Your task to perform on an android device: Do I have any events this weekend? Image 0: 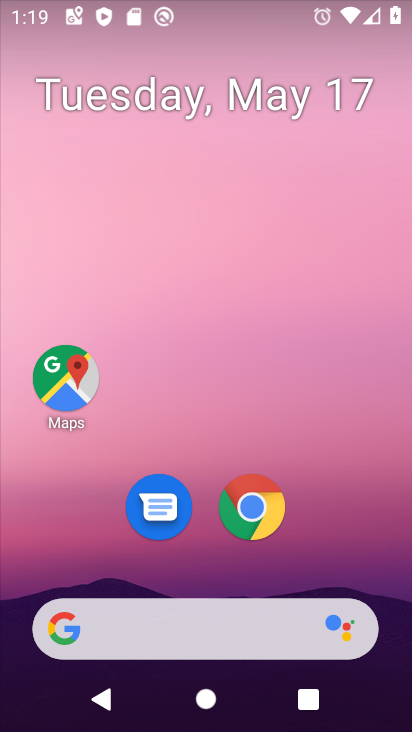
Step 0: drag from (301, 508) to (340, 203)
Your task to perform on an android device: Do I have any events this weekend? Image 1: 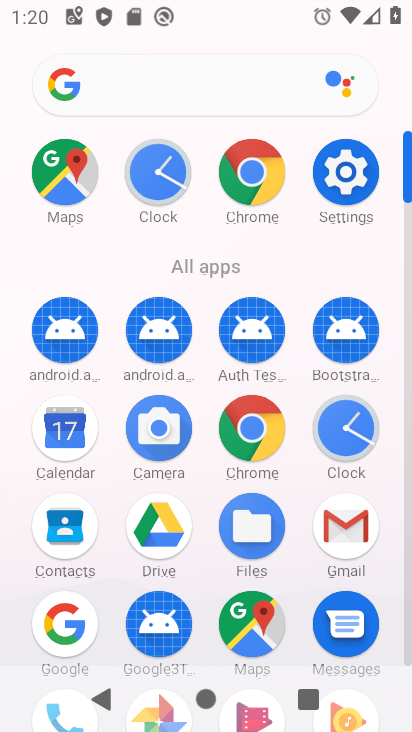
Step 1: click (62, 423)
Your task to perform on an android device: Do I have any events this weekend? Image 2: 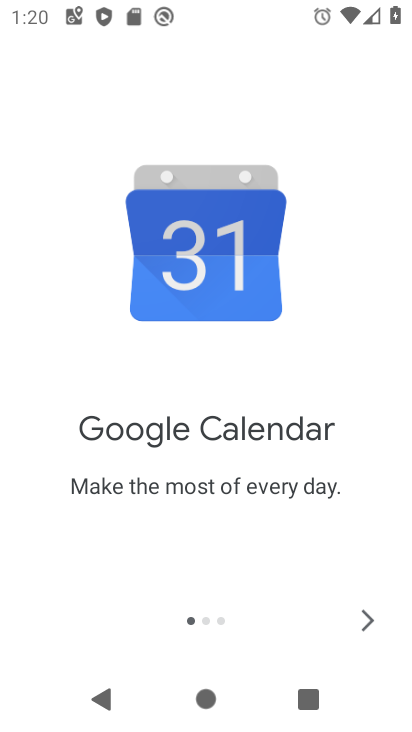
Step 2: click (343, 621)
Your task to perform on an android device: Do I have any events this weekend? Image 3: 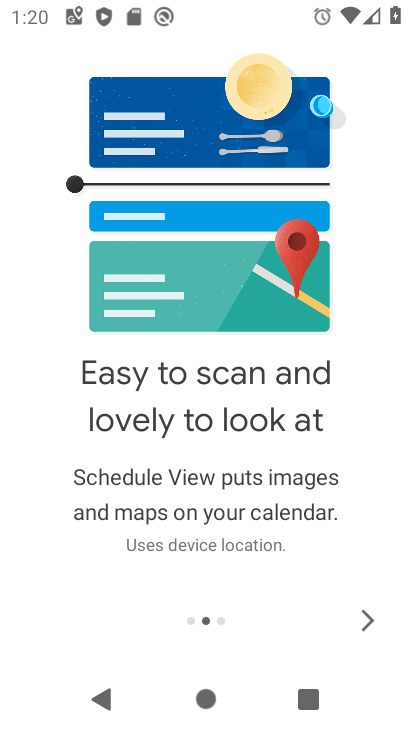
Step 3: click (344, 622)
Your task to perform on an android device: Do I have any events this weekend? Image 4: 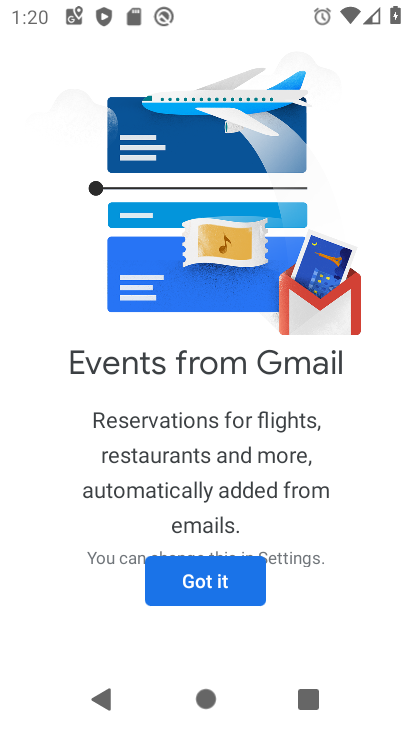
Step 4: click (217, 582)
Your task to perform on an android device: Do I have any events this weekend? Image 5: 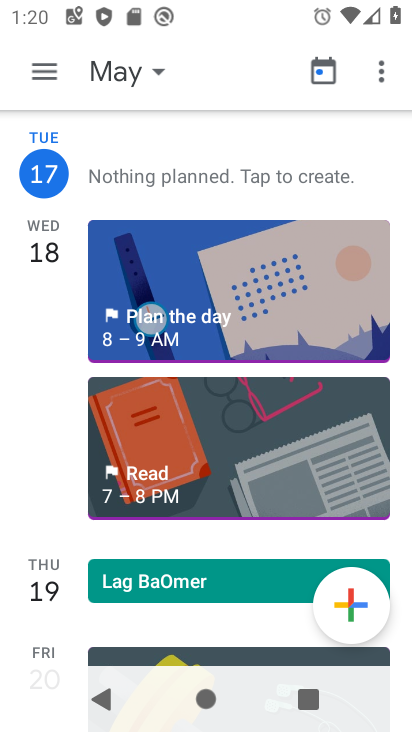
Step 5: click (36, 71)
Your task to perform on an android device: Do I have any events this weekend? Image 6: 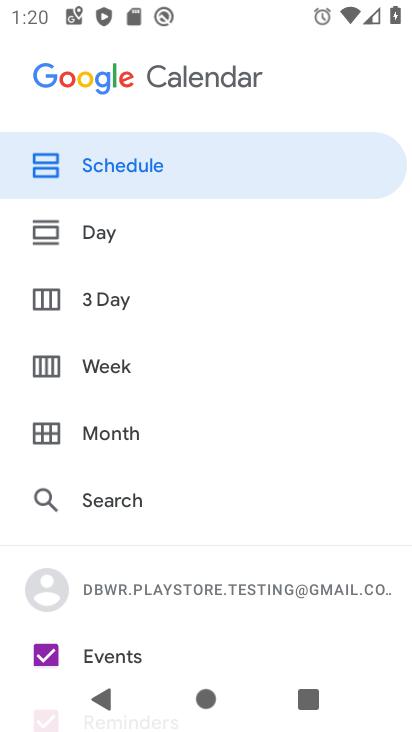
Step 6: click (105, 354)
Your task to perform on an android device: Do I have any events this weekend? Image 7: 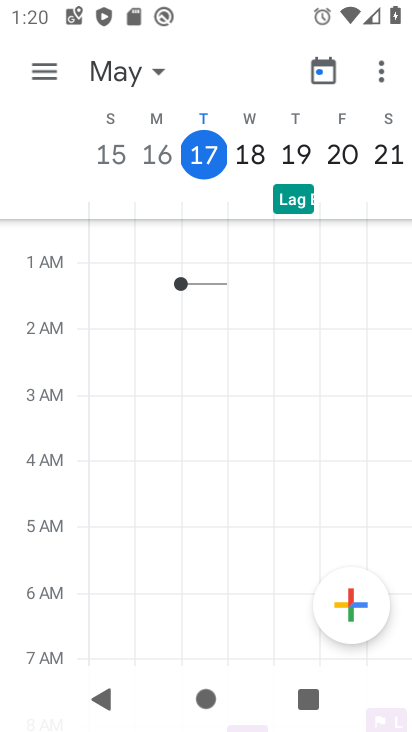
Step 7: task complete